Your task to perform on an android device: Go to sound settings Image 0: 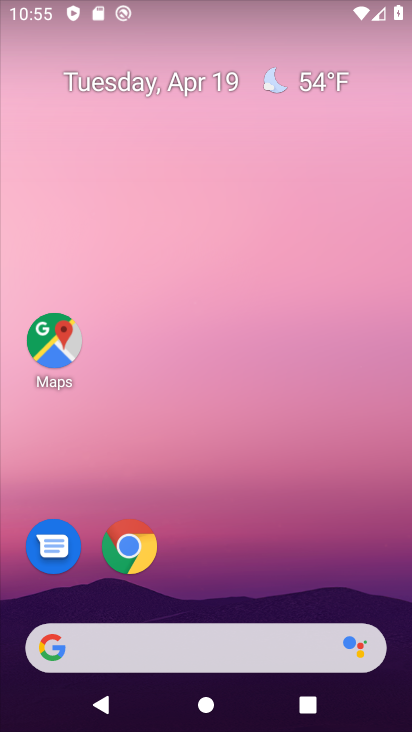
Step 0: drag from (253, 705) to (249, 52)
Your task to perform on an android device: Go to sound settings Image 1: 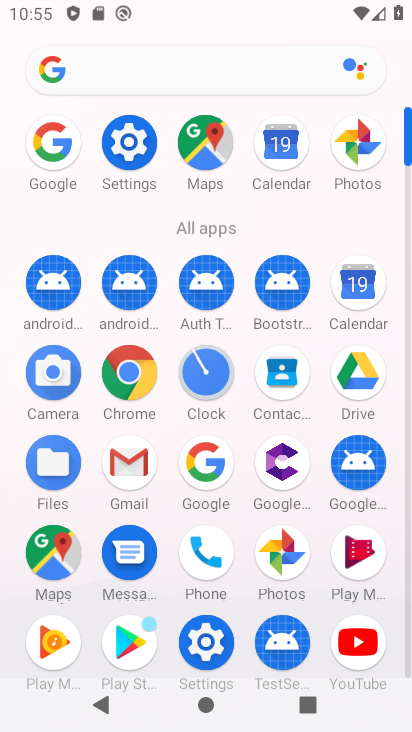
Step 1: click (130, 155)
Your task to perform on an android device: Go to sound settings Image 2: 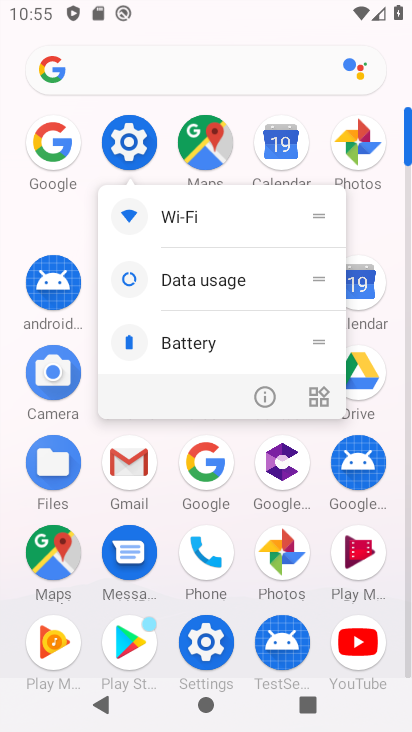
Step 2: click (125, 151)
Your task to perform on an android device: Go to sound settings Image 3: 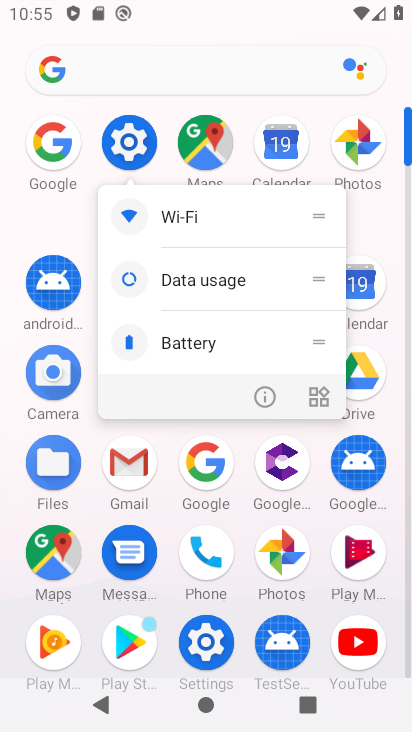
Step 3: click (258, 64)
Your task to perform on an android device: Go to sound settings Image 4: 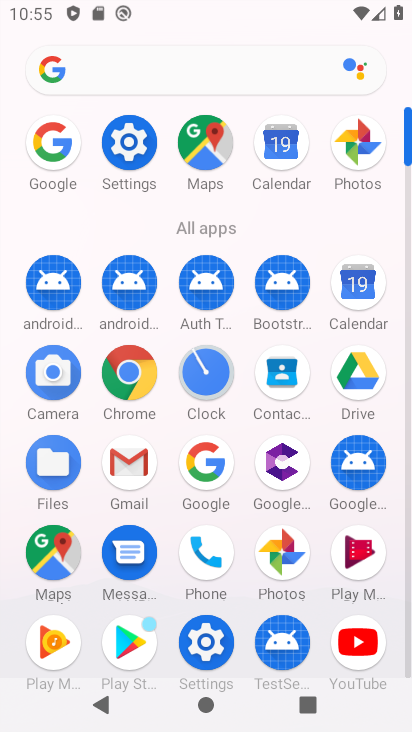
Step 4: click (210, 394)
Your task to perform on an android device: Go to sound settings Image 5: 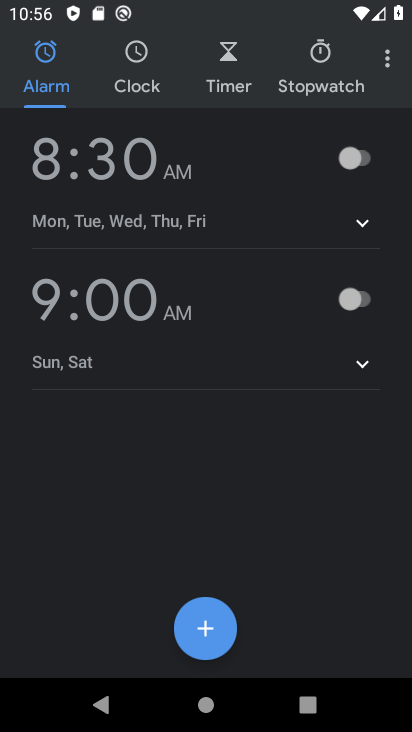
Step 5: click (387, 55)
Your task to perform on an android device: Go to sound settings Image 6: 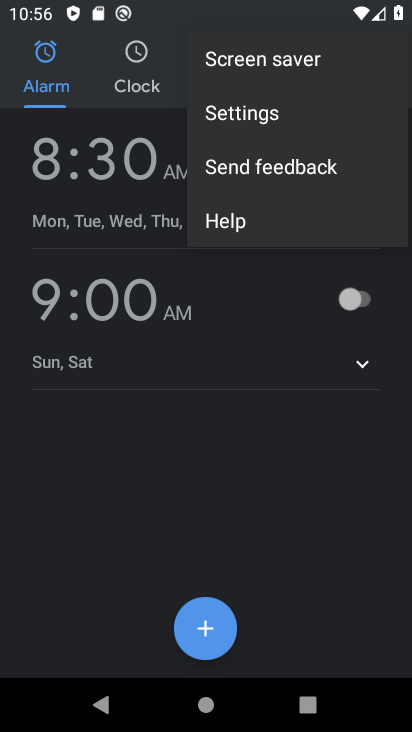
Step 6: click (274, 122)
Your task to perform on an android device: Go to sound settings Image 7: 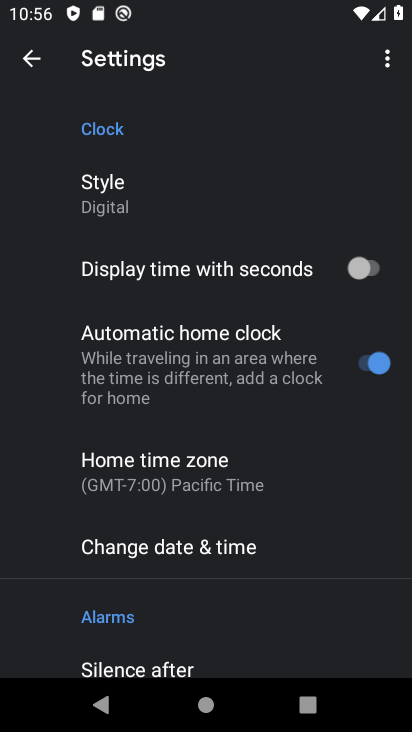
Step 7: drag from (247, 594) to (311, 69)
Your task to perform on an android device: Go to sound settings Image 8: 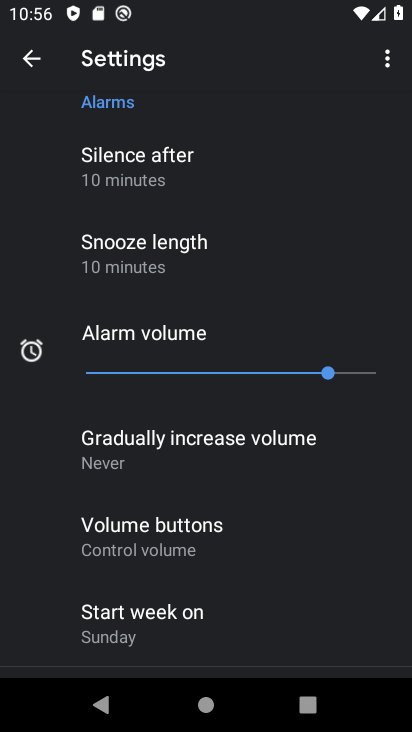
Step 8: drag from (250, 504) to (279, 55)
Your task to perform on an android device: Go to sound settings Image 9: 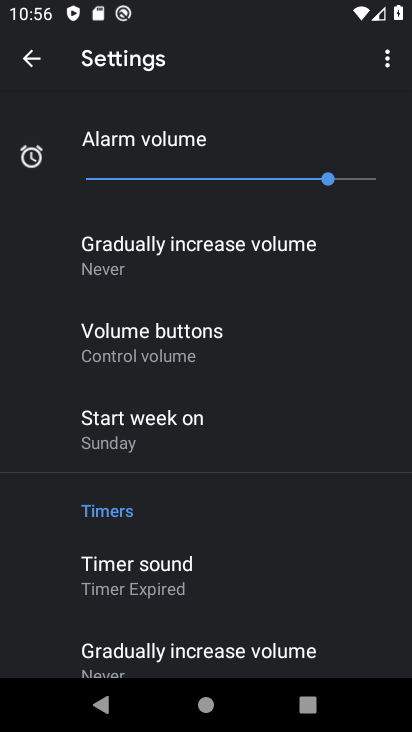
Step 9: click (163, 595)
Your task to perform on an android device: Go to sound settings Image 10: 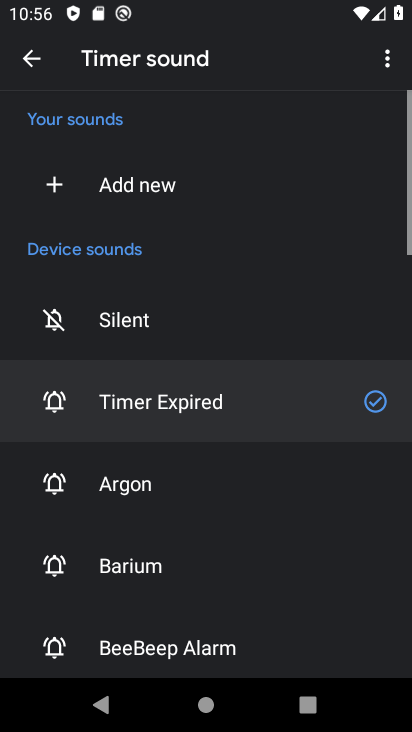
Step 10: click (189, 605)
Your task to perform on an android device: Go to sound settings Image 11: 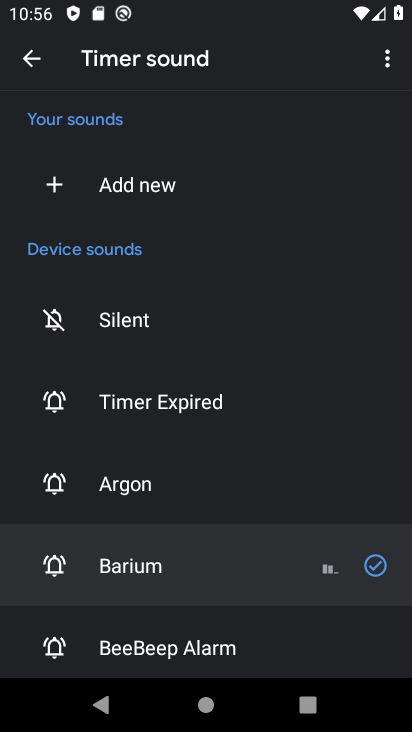
Step 11: task complete